Your task to perform on an android device: change the upload size in google photos Image 0: 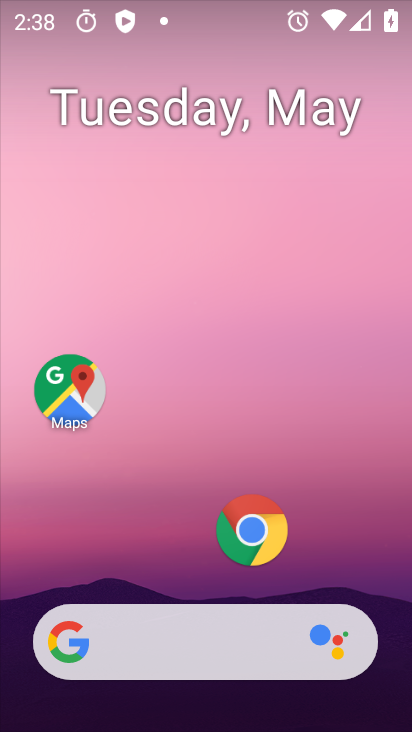
Step 0: drag from (234, 584) to (175, 6)
Your task to perform on an android device: change the upload size in google photos Image 1: 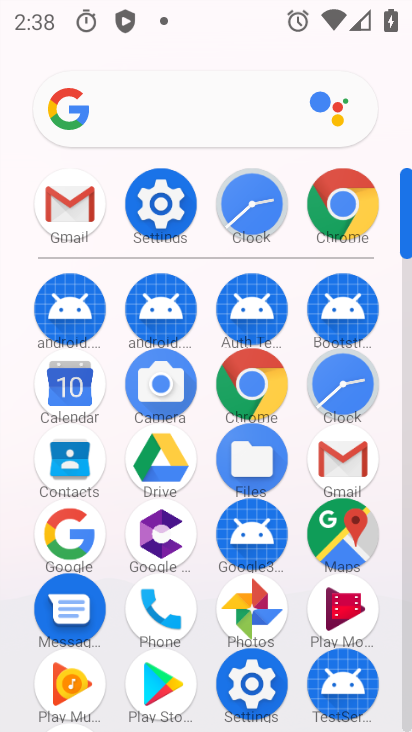
Step 1: click (256, 613)
Your task to perform on an android device: change the upload size in google photos Image 2: 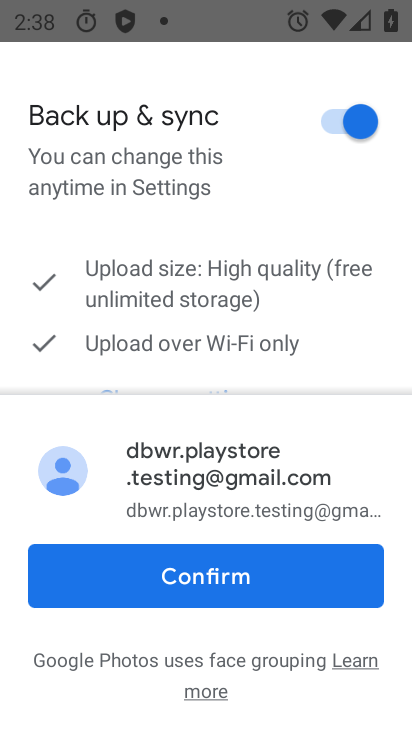
Step 2: drag from (187, 341) to (145, 0)
Your task to perform on an android device: change the upload size in google photos Image 3: 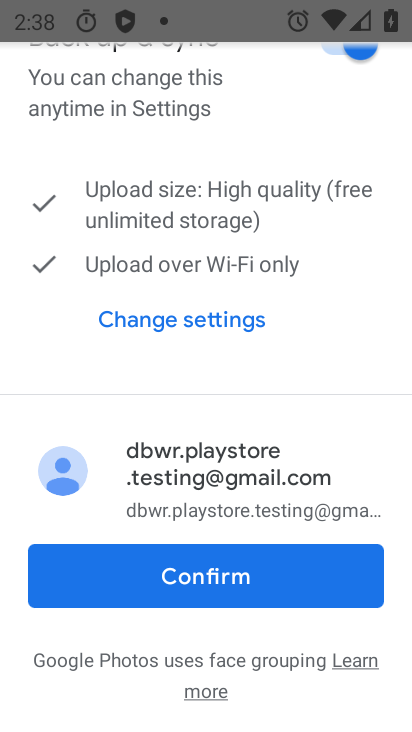
Step 3: click (209, 316)
Your task to perform on an android device: change the upload size in google photos Image 4: 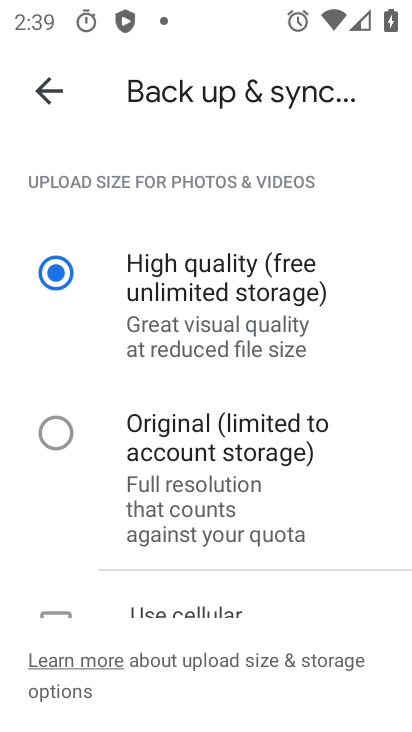
Step 4: click (57, 443)
Your task to perform on an android device: change the upload size in google photos Image 5: 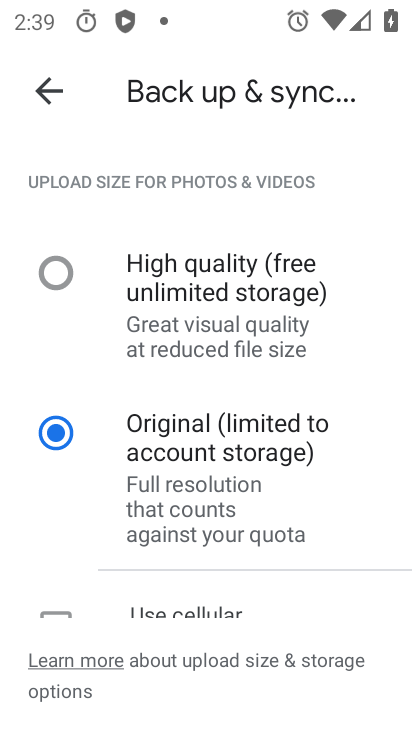
Step 5: click (69, 87)
Your task to perform on an android device: change the upload size in google photos Image 6: 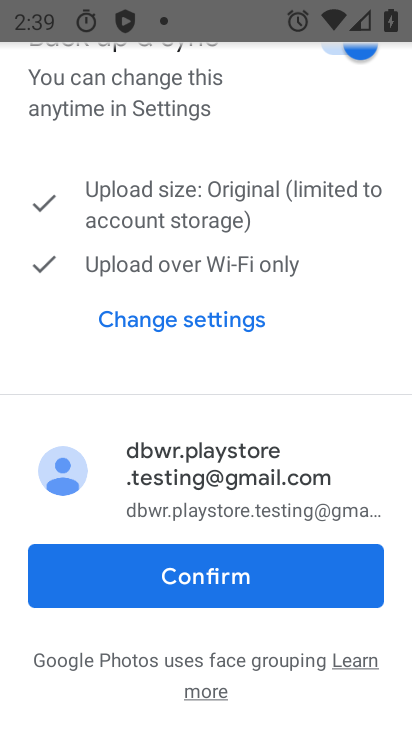
Step 6: click (318, 591)
Your task to perform on an android device: change the upload size in google photos Image 7: 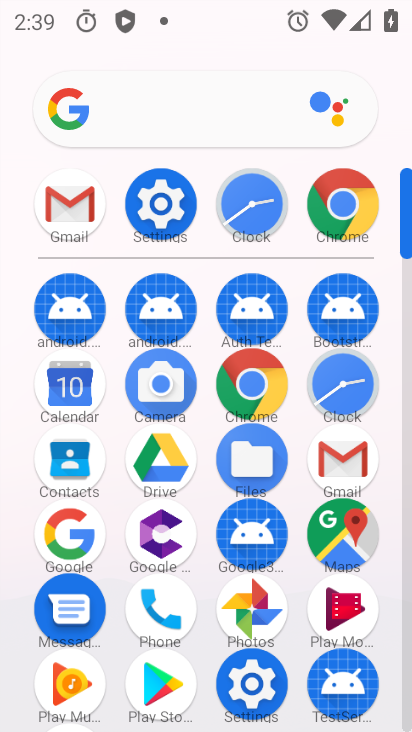
Step 7: task complete